Your task to perform on an android device: Open settings on Google Maps Image 0: 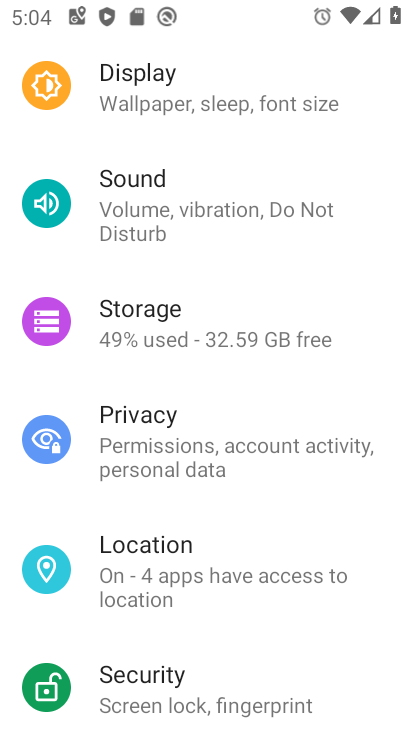
Step 0: press home button
Your task to perform on an android device: Open settings on Google Maps Image 1: 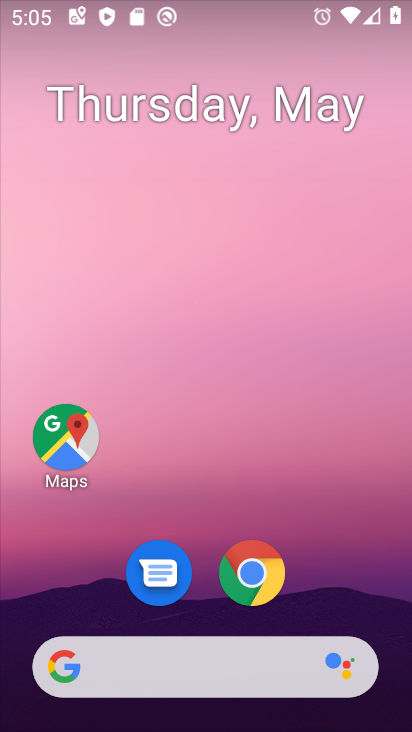
Step 1: drag from (299, 612) to (262, 81)
Your task to perform on an android device: Open settings on Google Maps Image 2: 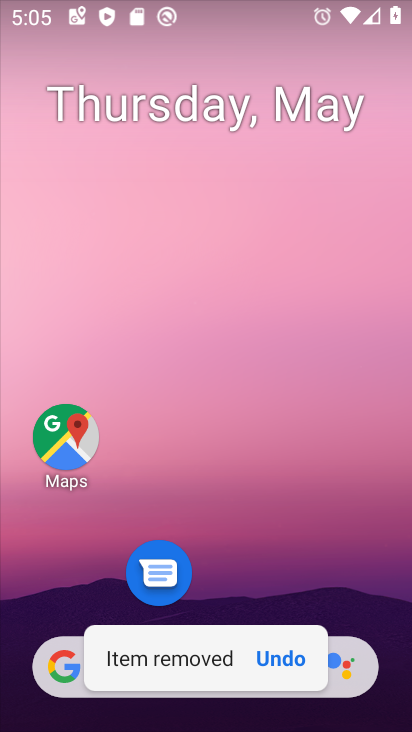
Step 2: click (281, 535)
Your task to perform on an android device: Open settings on Google Maps Image 3: 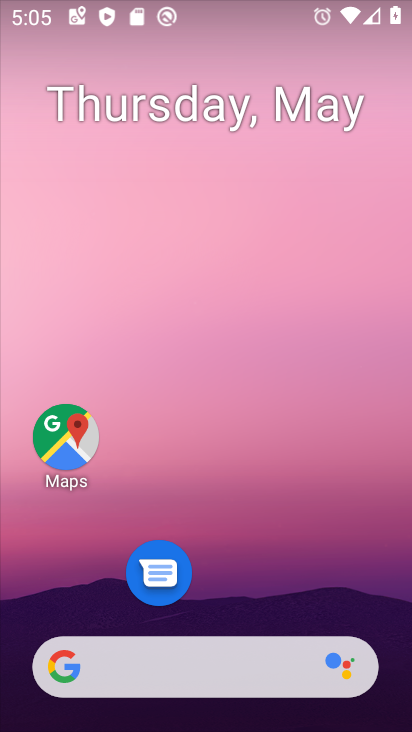
Step 3: drag from (240, 402) to (240, 186)
Your task to perform on an android device: Open settings on Google Maps Image 4: 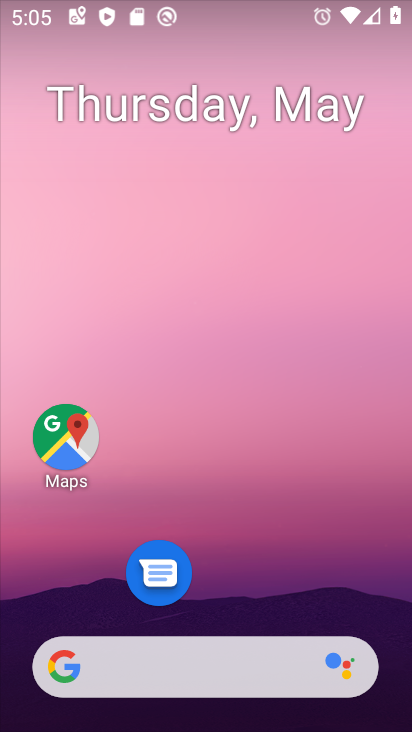
Step 4: drag from (229, 312) to (222, 90)
Your task to perform on an android device: Open settings on Google Maps Image 5: 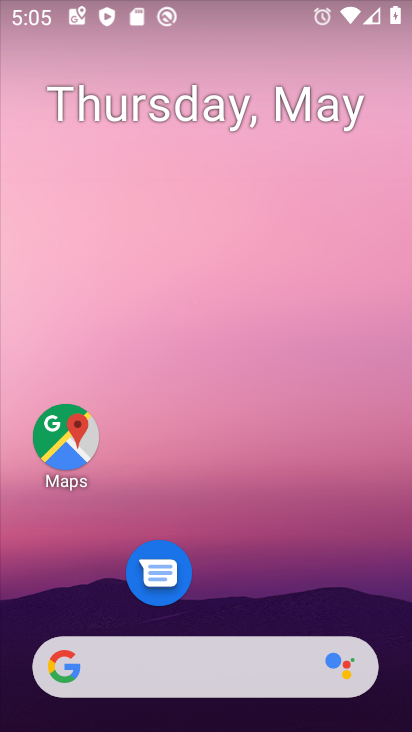
Step 5: drag from (214, 607) to (206, 14)
Your task to perform on an android device: Open settings on Google Maps Image 6: 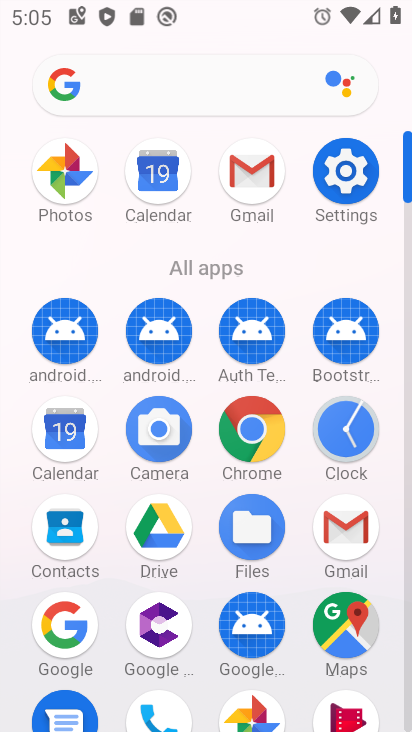
Step 6: click (338, 621)
Your task to perform on an android device: Open settings on Google Maps Image 7: 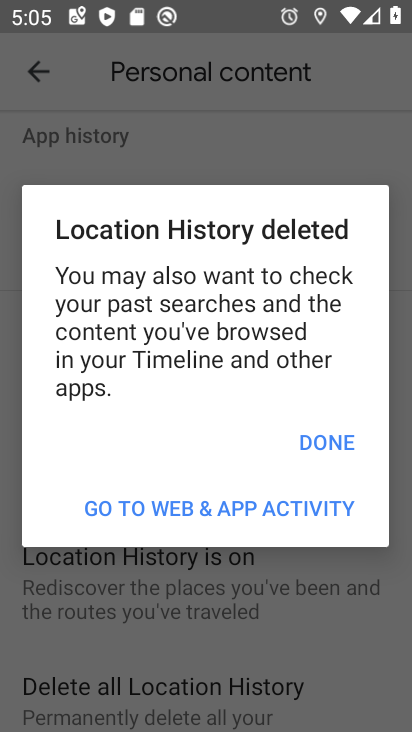
Step 7: click (334, 434)
Your task to perform on an android device: Open settings on Google Maps Image 8: 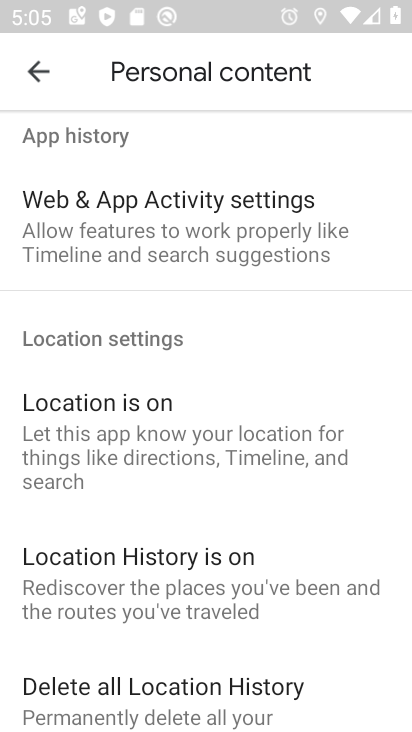
Step 8: task complete